Your task to perform on an android device: Open calendar and show me the third week of next month Image 0: 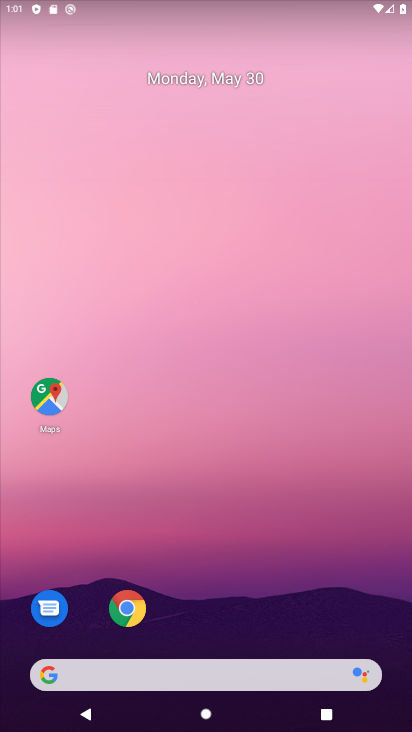
Step 0: drag from (196, 587) to (209, 234)
Your task to perform on an android device: Open calendar and show me the third week of next month Image 1: 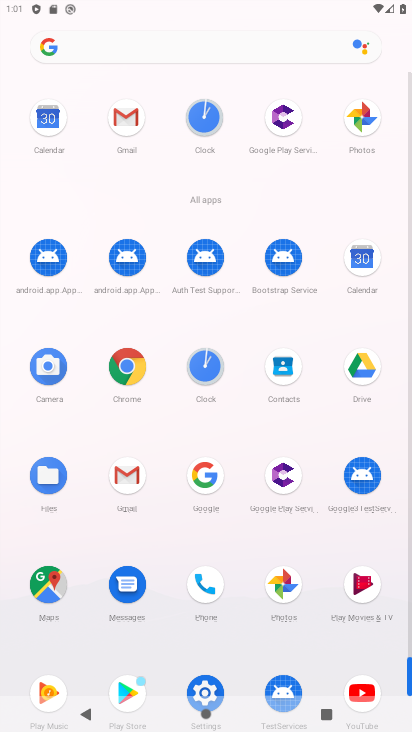
Step 1: click (228, 445)
Your task to perform on an android device: Open calendar and show me the third week of next month Image 2: 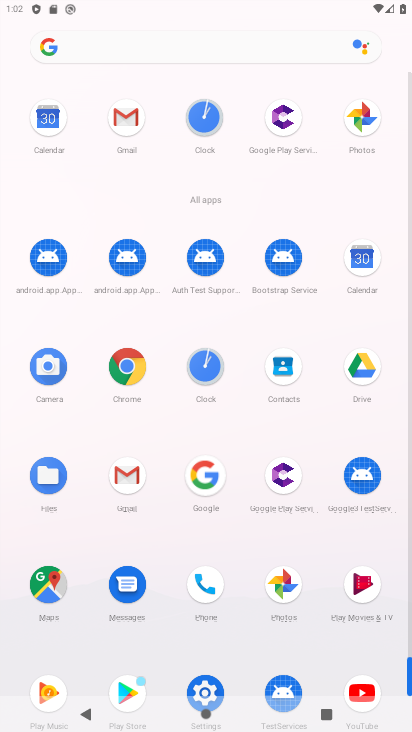
Step 2: click (372, 260)
Your task to perform on an android device: Open calendar and show me the third week of next month Image 3: 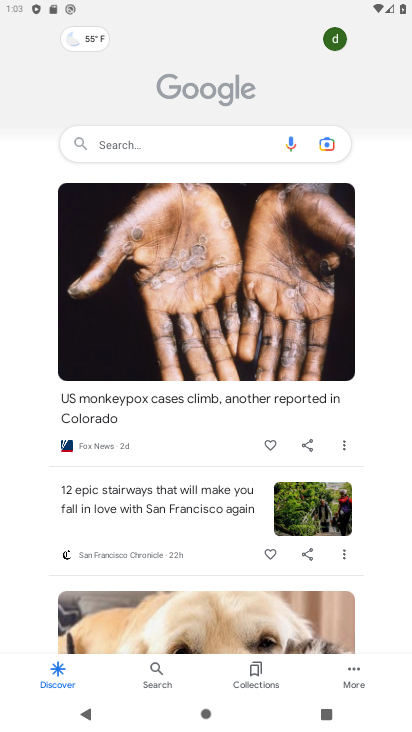
Step 3: press home button
Your task to perform on an android device: Open calendar and show me the third week of next month Image 4: 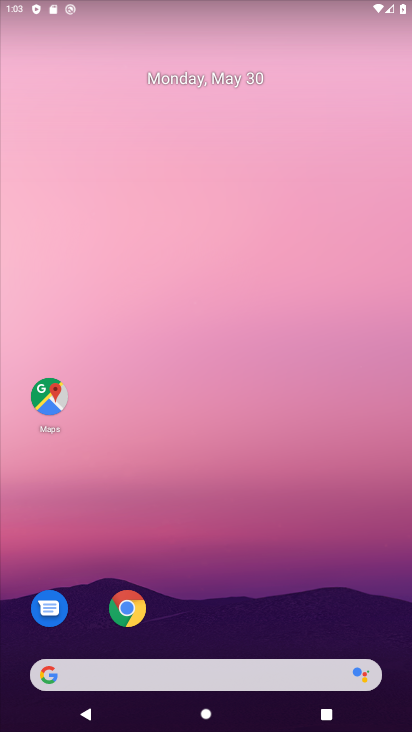
Step 4: drag from (206, 162) to (212, 108)
Your task to perform on an android device: Open calendar and show me the third week of next month Image 5: 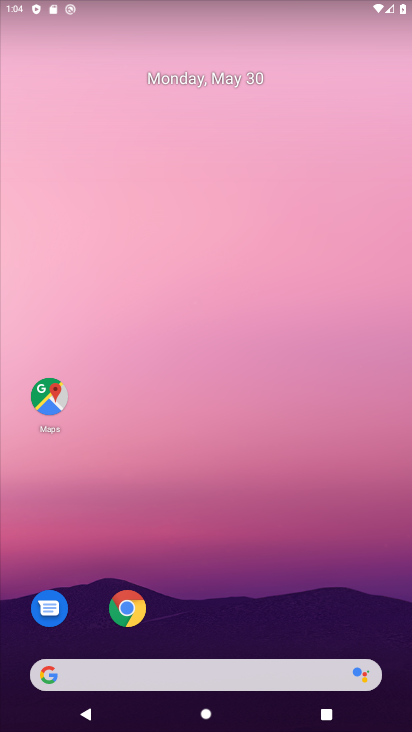
Step 5: drag from (135, 621) to (240, 276)
Your task to perform on an android device: Open calendar and show me the third week of next month Image 6: 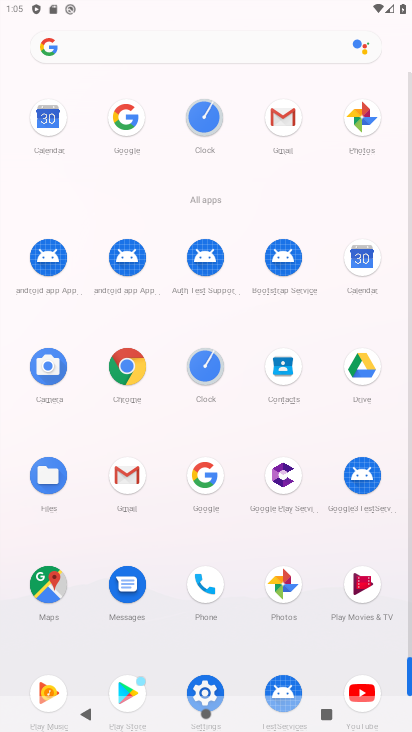
Step 6: click (353, 272)
Your task to perform on an android device: Open calendar and show me the third week of next month Image 7: 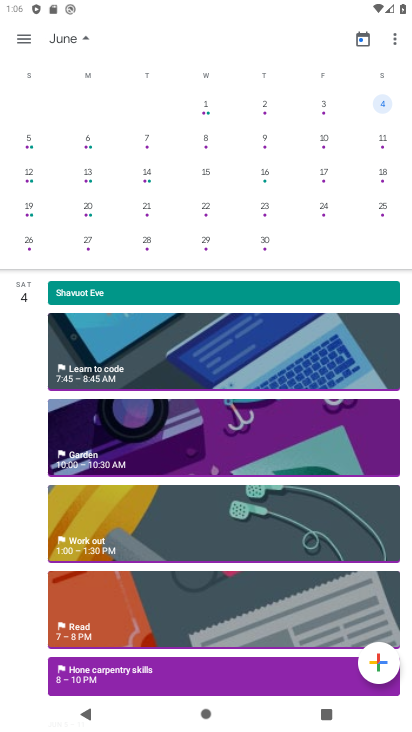
Step 7: click (151, 176)
Your task to perform on an android device: Open calendar and show me the third week of next month Image 8: 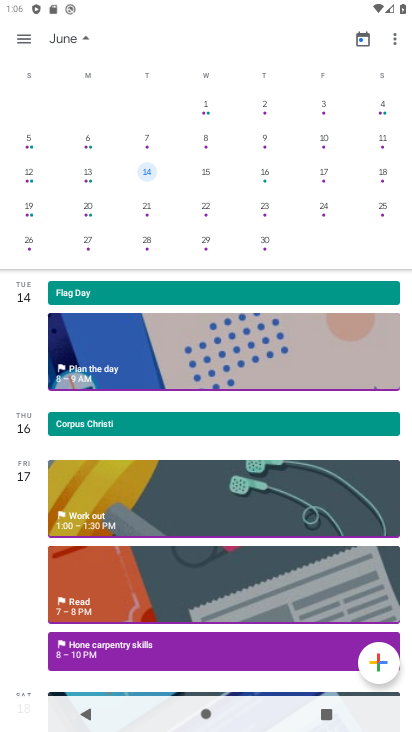
Step 8: click (84, 170)
Your task to perform on an android device: Open calendar and show me the third week of next month Image 9: 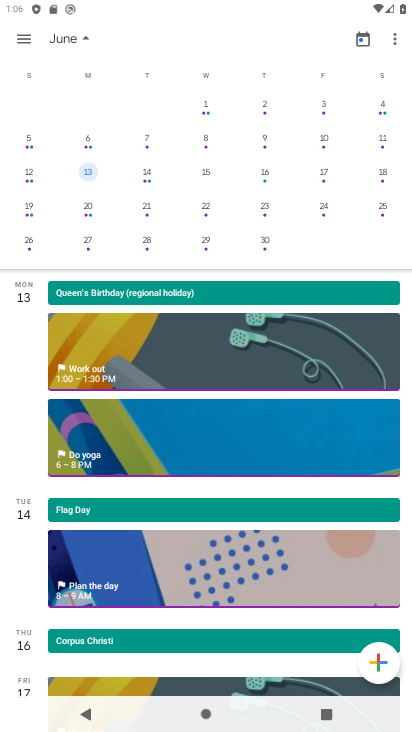
Step 9: click (38, 181)
Your task to perform on an android device: Open calendar and show me the third week of next month Image 10: 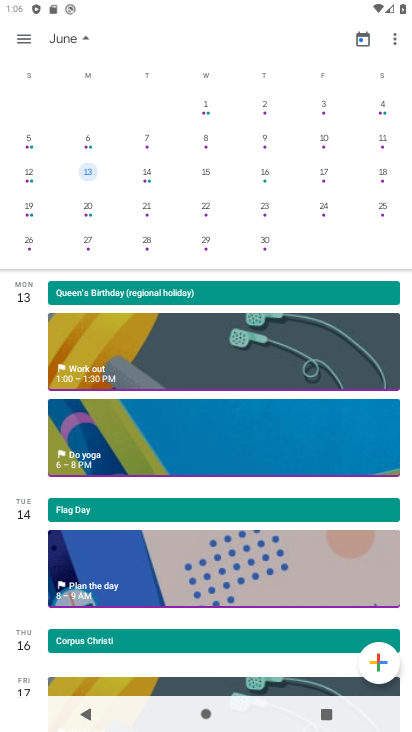
Step 10: task complete